Your task to perform on an android device: Open ESPN.com Image 0: 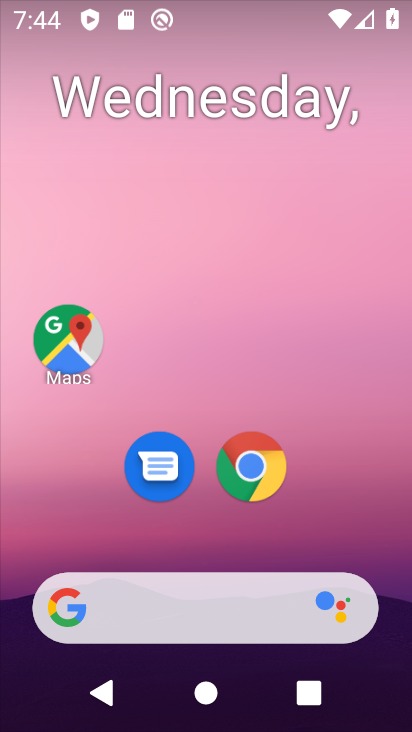
Step 0: click (259, 460)
Your task to perform on an android device: Open ESPN.com Image 1: 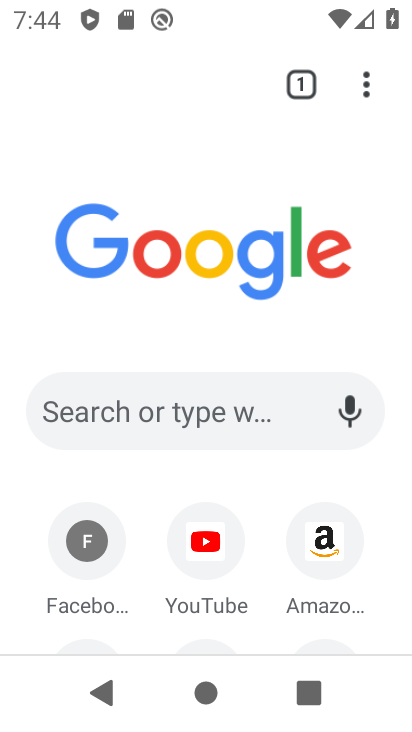
Step 1: click (221, 440)
Your task to perform on an android device: Open ESPN.com Image 2: 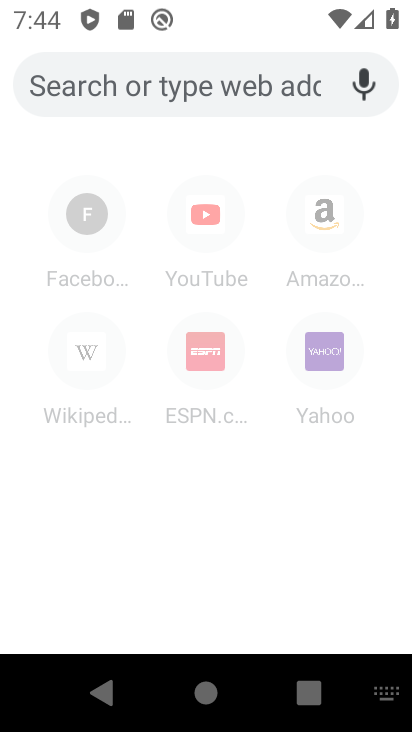
Step 2: click (195, 369)
Your task to perform on an android device: Open ESPN.com Image 3: 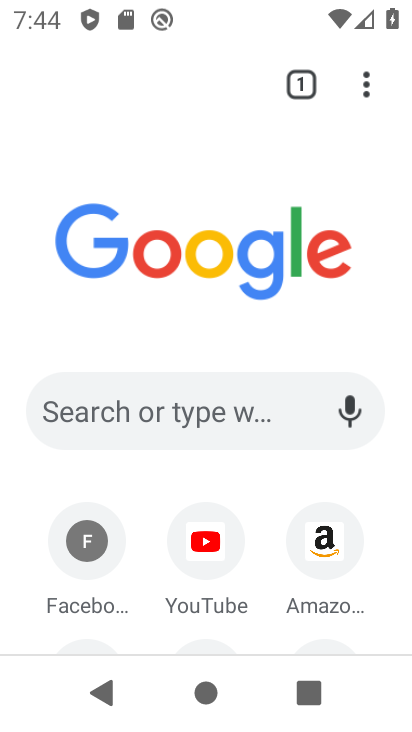
Step 3: drag from (245, 631) to (245, 478)
Your task to perform on an android device: Open ESPN.com Image 4: 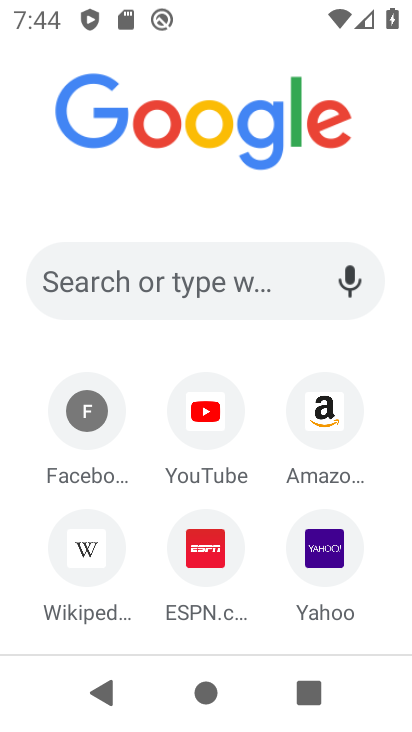
Step 4: click (202, 550)
Your task to perform on an android device: Open ESPN.com Image 5: 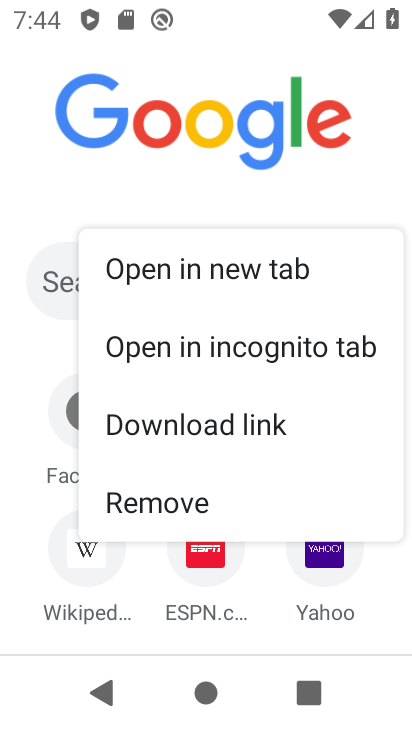
Step 5: click (208, 544)
Your task to perform on an android device: Open ESPN.com Image 6: 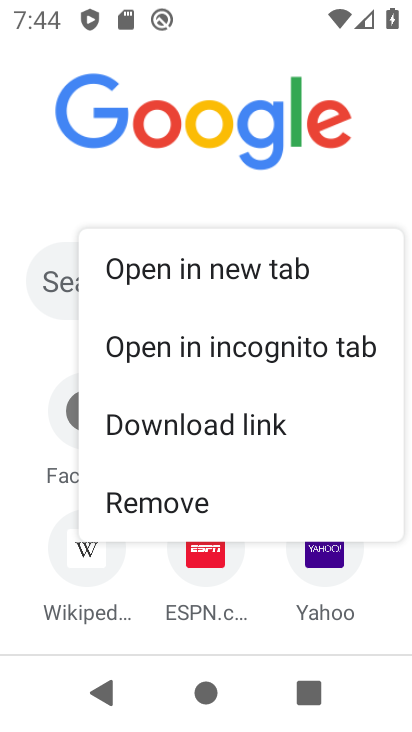
Step 6: click (209, 558)
Your task to perform on an android device: Open ESPN.com Image 7: 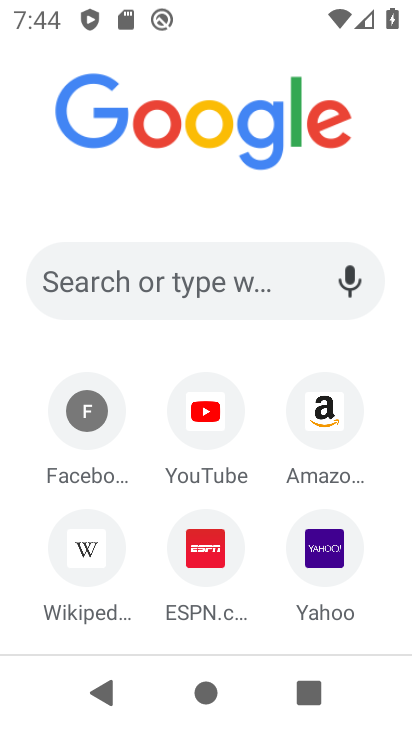
Step 7: click (217, 583)
Your task to perform on an android device: Open ESPN.com Image 8: 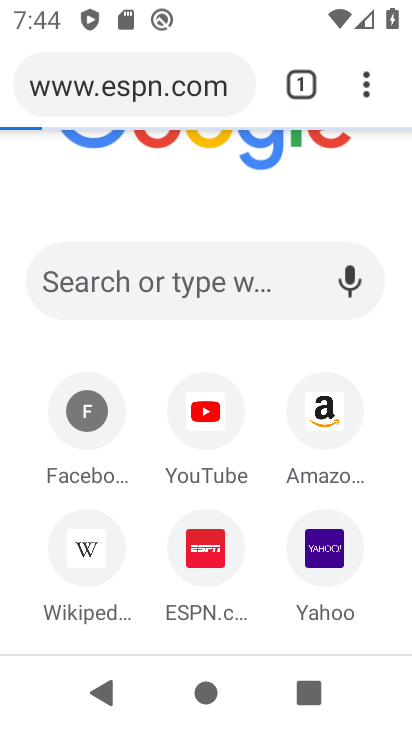
Step 8: click (217, 583)
Your task to perform on an android device: Open ESPN.com Image 9: 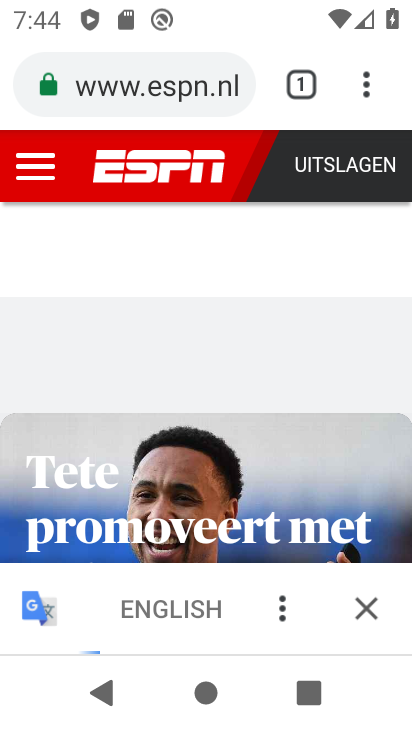
Step 9: task complete